Your task to perform on an android device: set default search engine in the chrome app Image 0: 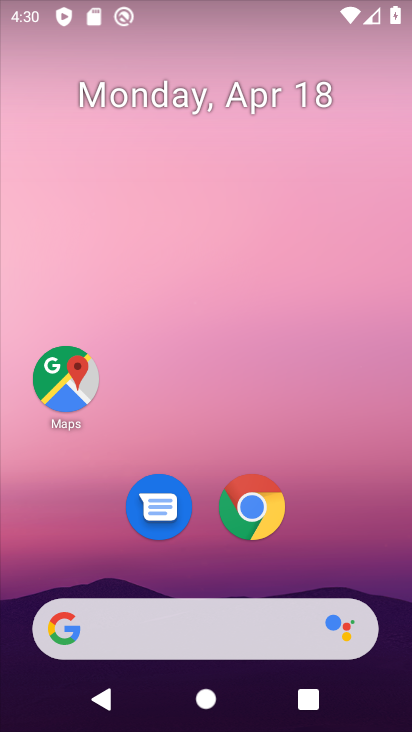
Step 0: click (258, 501)
Your task to perform on an android device: set default search engine in the chrome app Image 1: 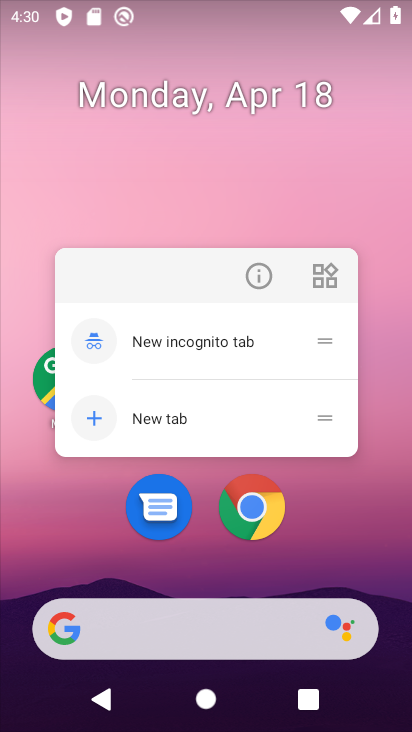
Step 1: click (258, 501)
Your task to perform on an android device: set default search engine in the chrome app Image 2: 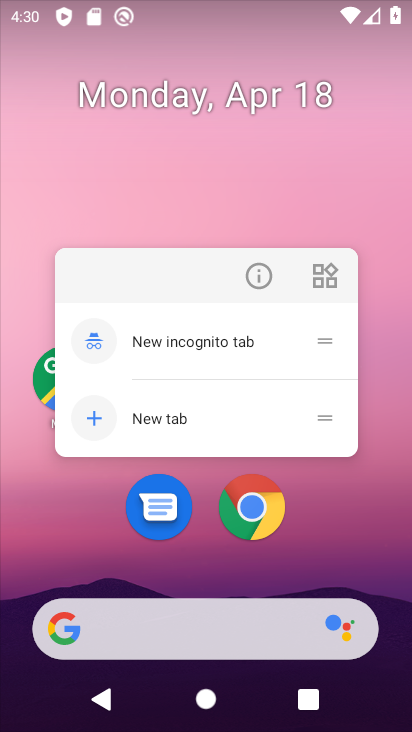
Step 2: click (267, 516)
Your task to perform on an android device: set default search engine in the chrome app Image 3: 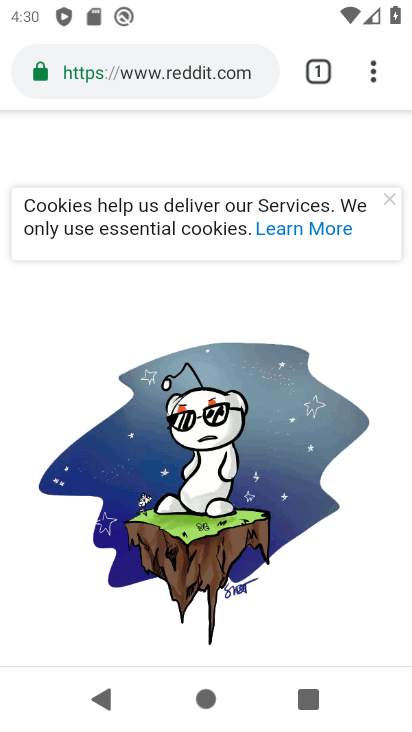
Step 3: click (363, 65)
Your task to perform on an android device: set default search engine in the chrome app Image 4: 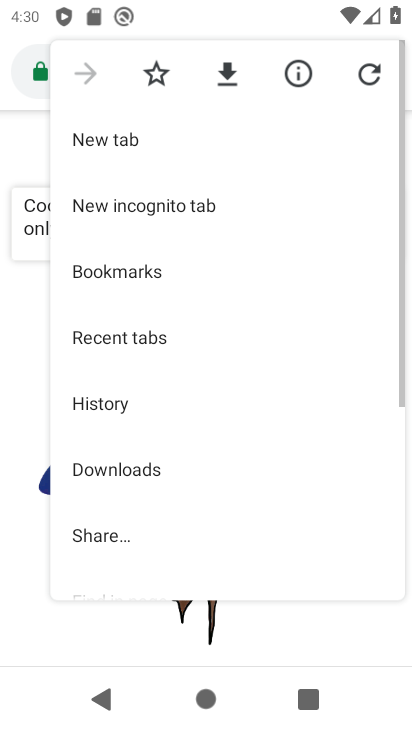
Step 4: drag from (240, 478) to (223, 145)
Your task to perform on an android device: set default search engine in the chrome app Image 5: 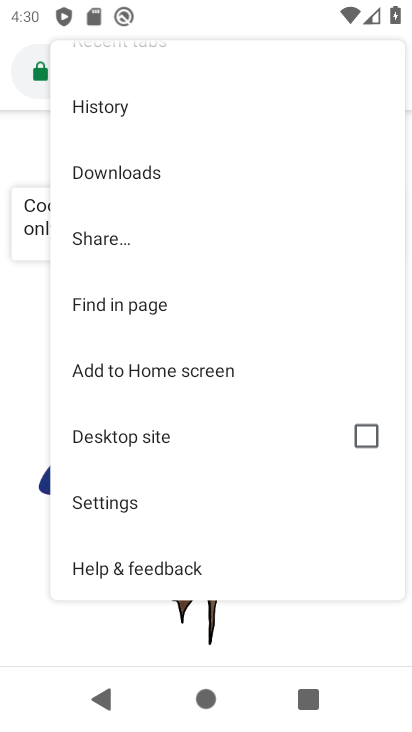
Step 5: click (147, 514)
Your task to perform on an android device: set default search engine in the chrome app Image 6: 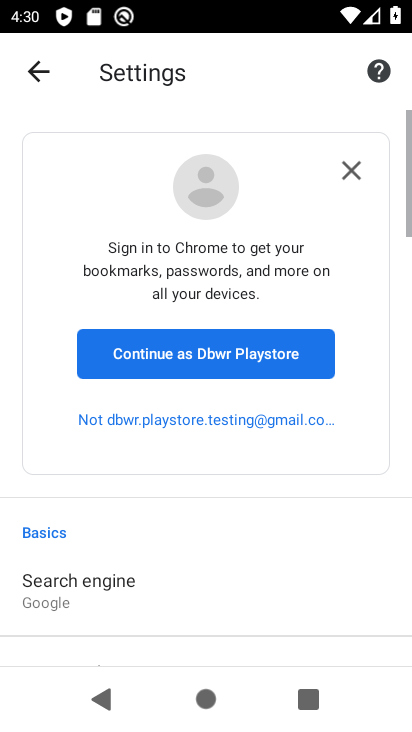
Step 6: drag from (169, 575) to (170, 140)
Your task to perform on an android device: set default search engine in the chrome app Image 7: 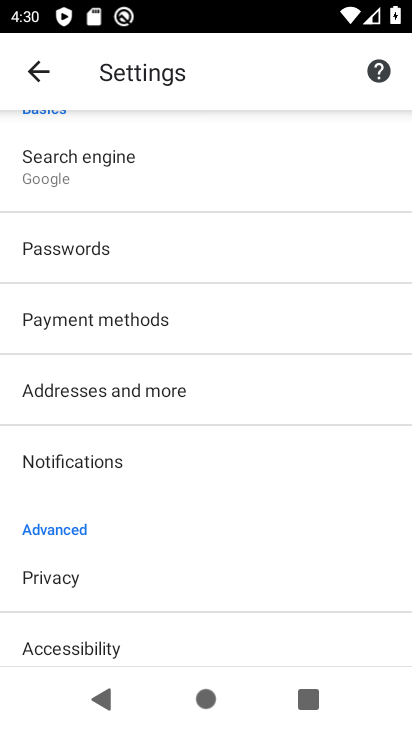
Step 7: drag from (183, 576) to (179, 303)
Your task to perform on an android device: set default search engine in the chrome app Image 8: 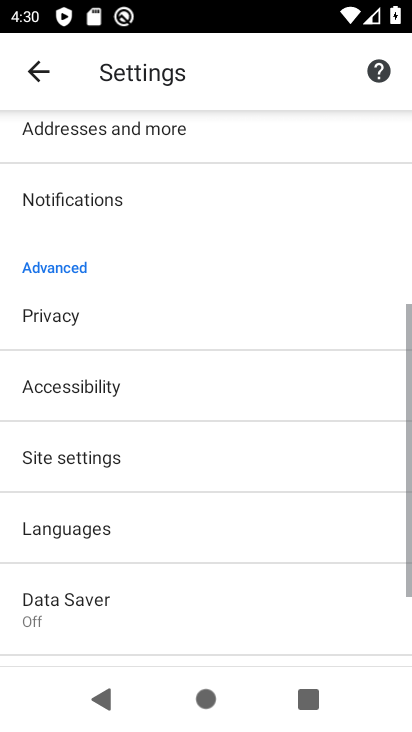
Step 8: click (92, 329)
Your task to perform on an android device: set default search engine in the chrome app Image 9: 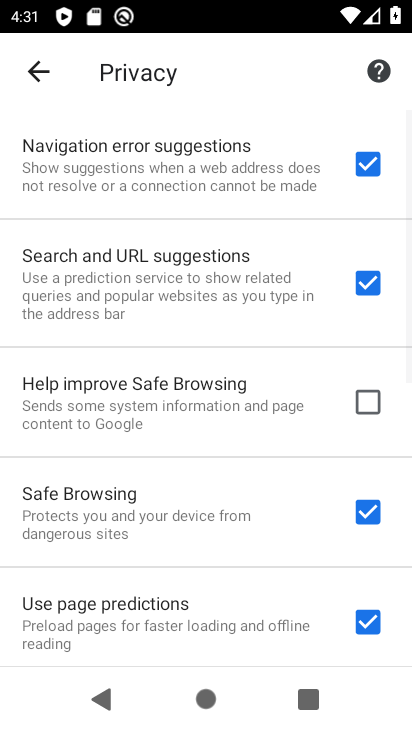
Step 9: drag from (198, 308) to (215, 649)
Your task to perform on an android device: set default search engine in the chrome app Image 10: 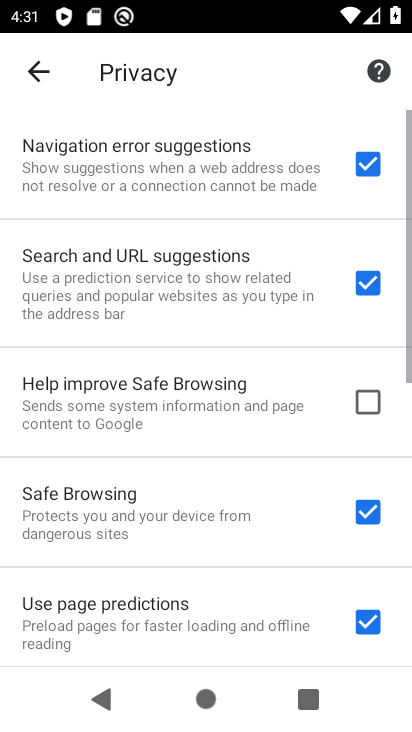
Step 10: drag from (197, 568) to (203, 185)
Your task to perform on an android device: set default search engine in the chrome app Image 11: 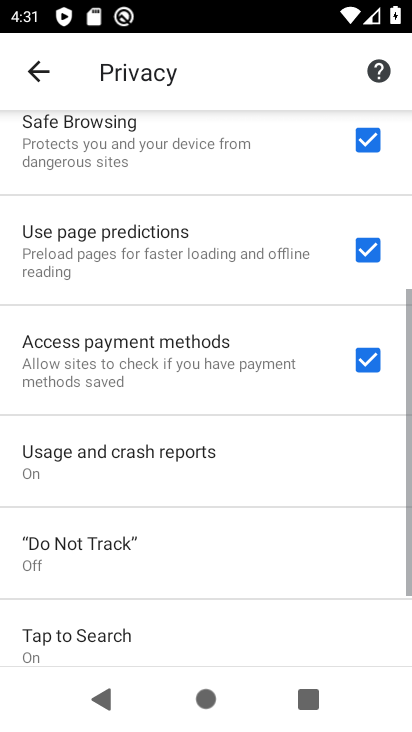
Step 11: click (46, 71)
Your task to perform on an android device: set default search engine in the chrome app Image 12: 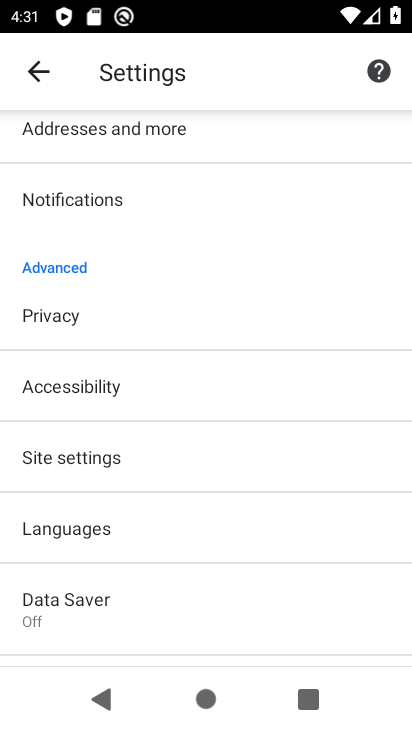
Step 12: drag from (155, 179) to (159, 537)
Your task to perform on an android device: set default search engine in the chrome app Image 13: 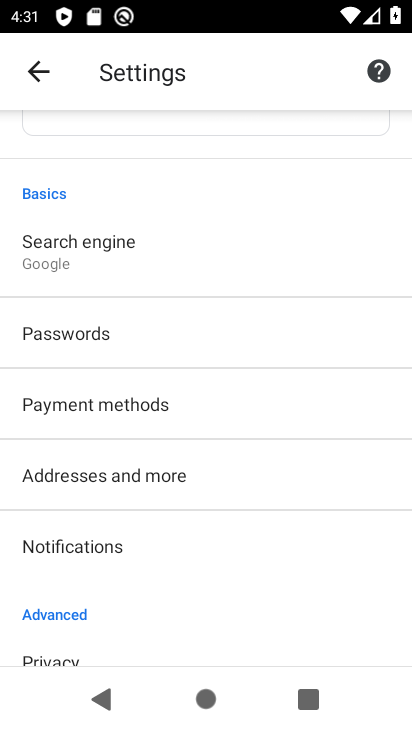
Step 13: click (147, 255)
Your task to perform on an android device: set default search engine in the chrome app Image 14: 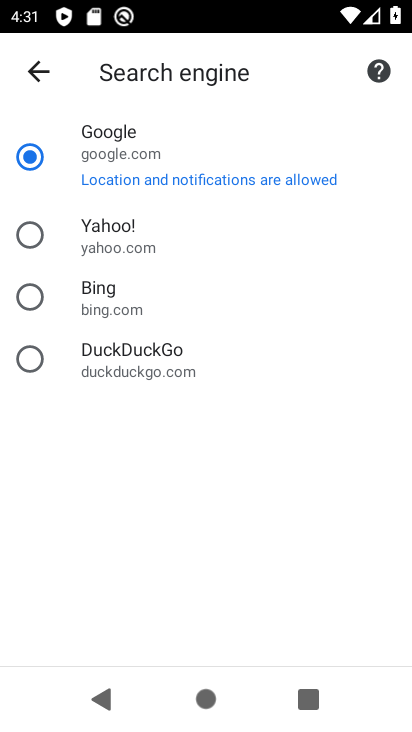
Step 14: task complete